Your task to perform on an android device: turn off smart reply in the gmail app Image 0: 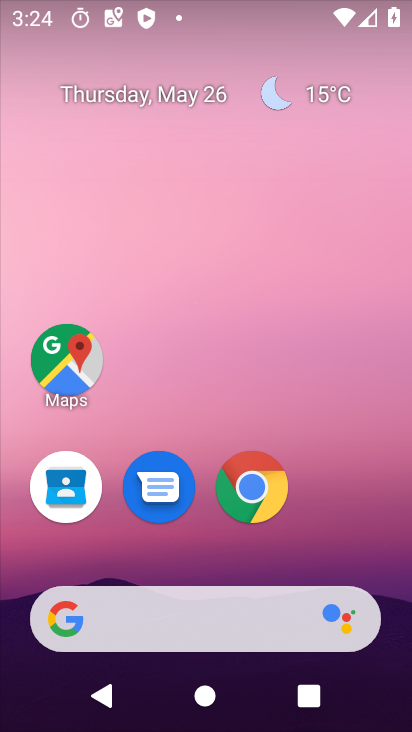
Step 0: drag from (177, 521) to (175, 215)
Your task to perform on an android device: turn off smart reply in the gmail app Image 1: 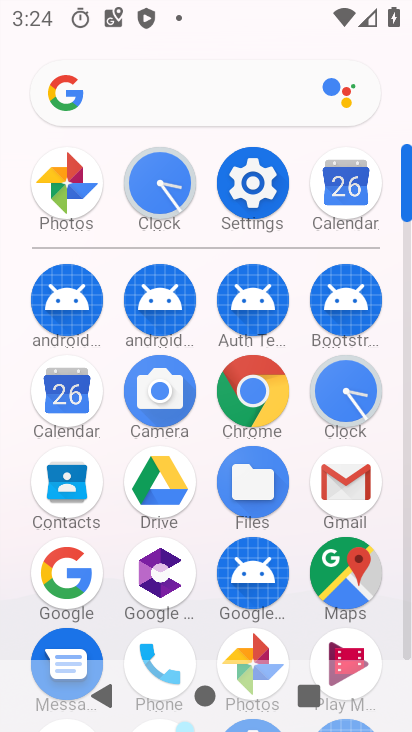
Step 1: click (324, 483)
Your task to perform on an android device: turn off smart reply in the gmail app Image 2: 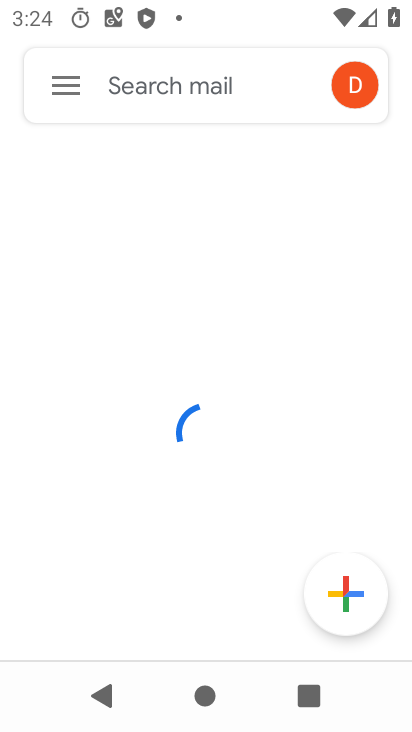
Step 2: click (58, 66)
Your task to perform on an android device: turn off smart reply in the gmail app Image 3: 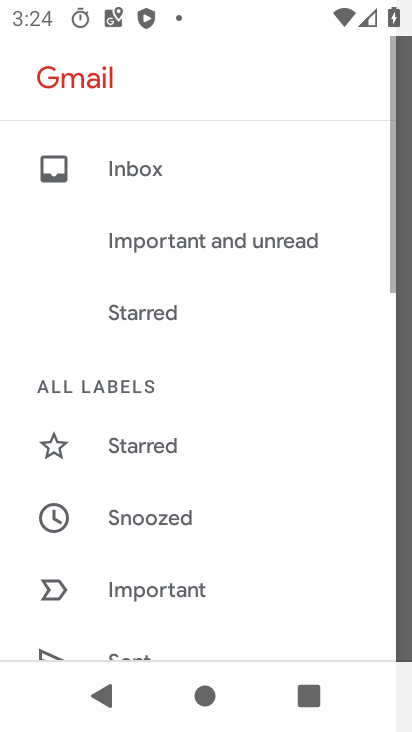
Step 3: drag from (155, 587) to (200, 328)
Your task to perform on an android device: turn off smart reply in the gmail app Image 4: 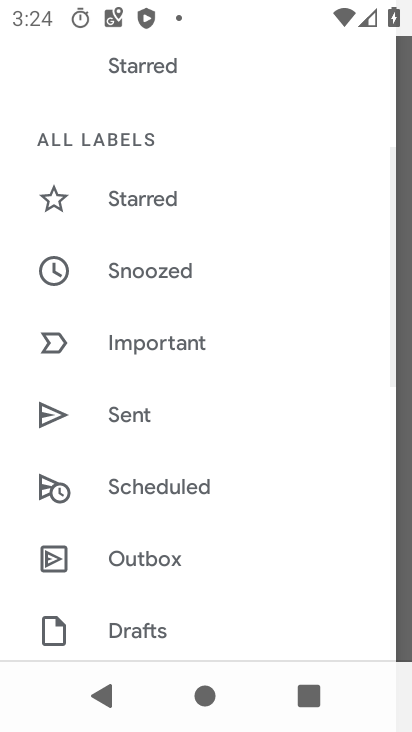
Step 4: drag from (192, 540) to (198, 300)
Your task to perform on an android device: turn off smart reply in the gmail app Image 5: 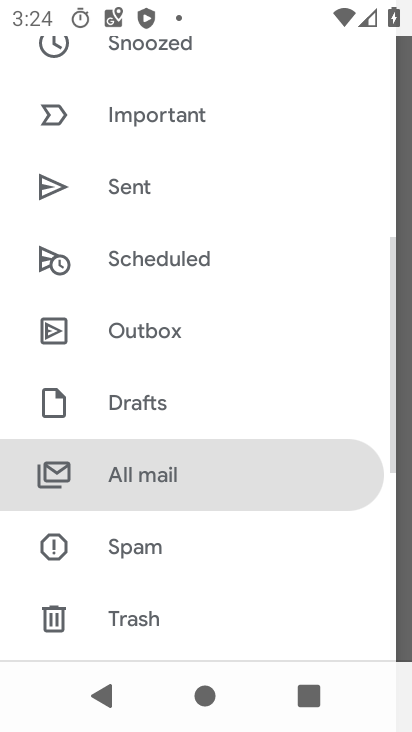
Step 5: drag from (192, 531) to (208, 230)
Your task to perform on an android device: turn off smart reply in the gmail app Image 6: 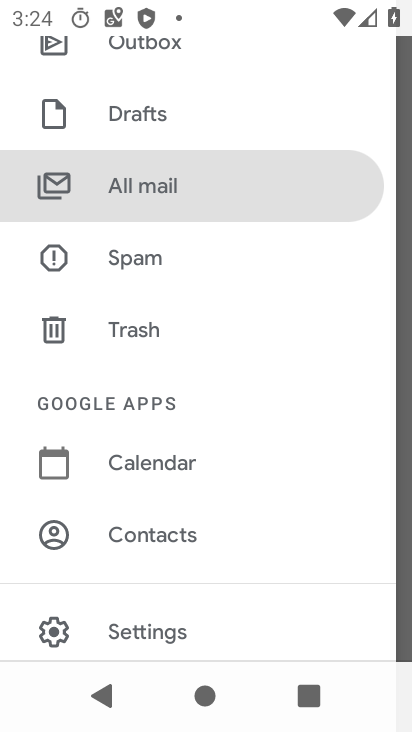
Step 6: drag from (201, 560) to (218, 334)
Your task to perform on an android device: turn off smart reply in the gmail app Image 7: 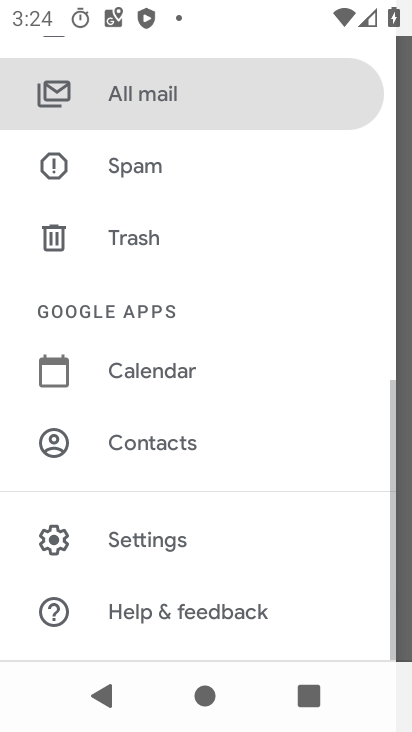
Step 7: click (154, 532)
Your task to perform on an android device: turn off smart reply in the gmail app Image 8: 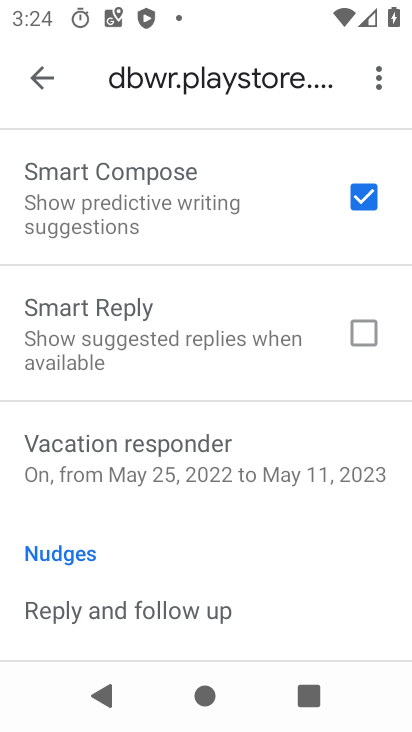
Step 8: task complete